Your task to perform on an android device: When is my next meeting? Image 0: 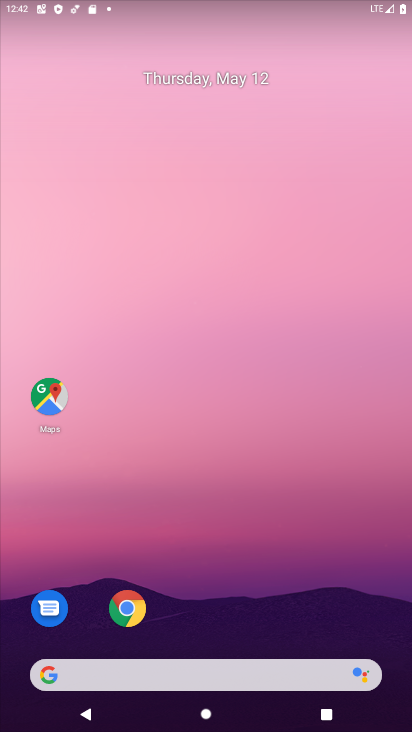
Step 0: drag from (268, 482) to (236, 22)
Your task to perform on an android device: When is my next meeting? Image 1: 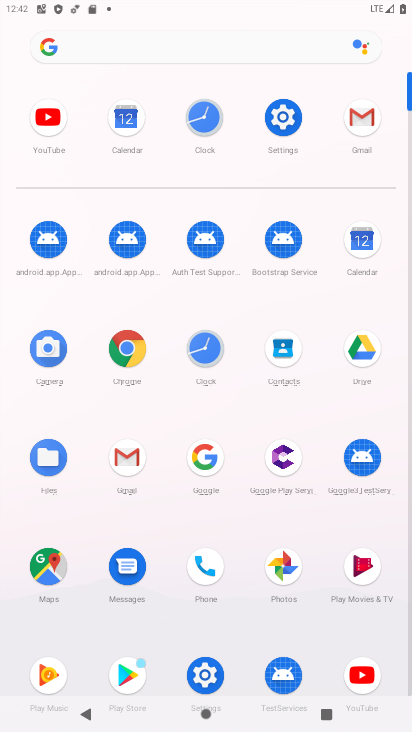
Step 1: click (124, 130)
Your task to perform on an android device: When is my next meeting? Image 2: 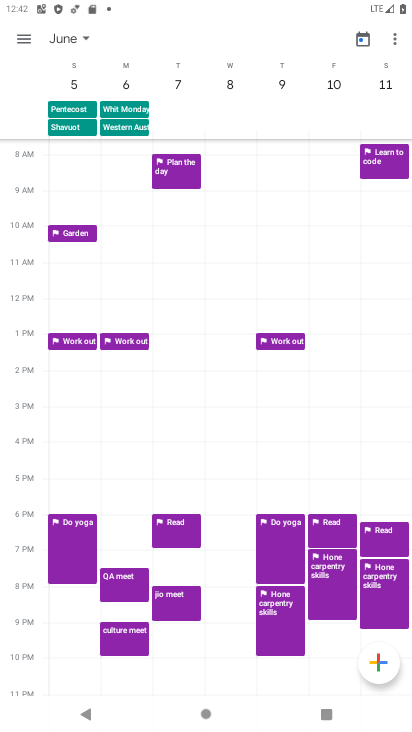
Step 2: click (87, 38)
Your task to perform on an android device: When is my next meeting? Image 3: 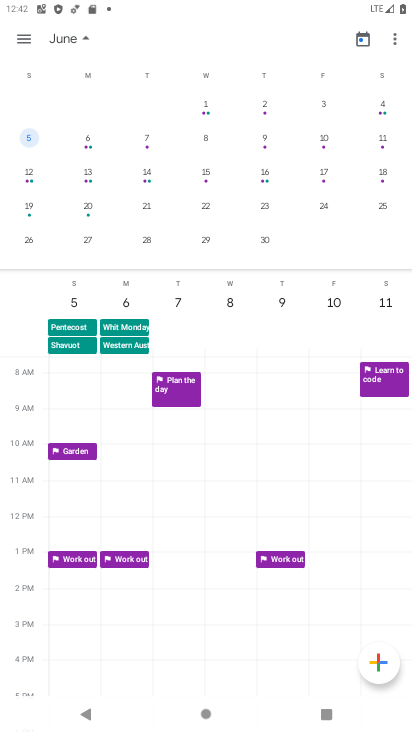
Step 3: click (364, 39)
Your task to perform on an android device: When is my next meeting? Image 4: 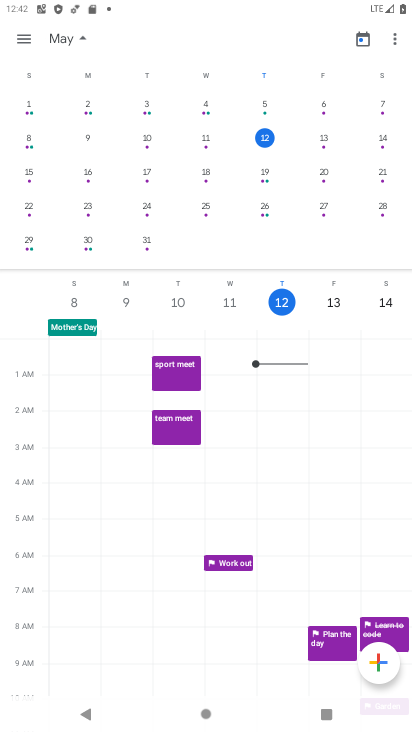
Step 4: click (19, 38)
Your task to perform on an android device: When is my next meeting? Image 5: 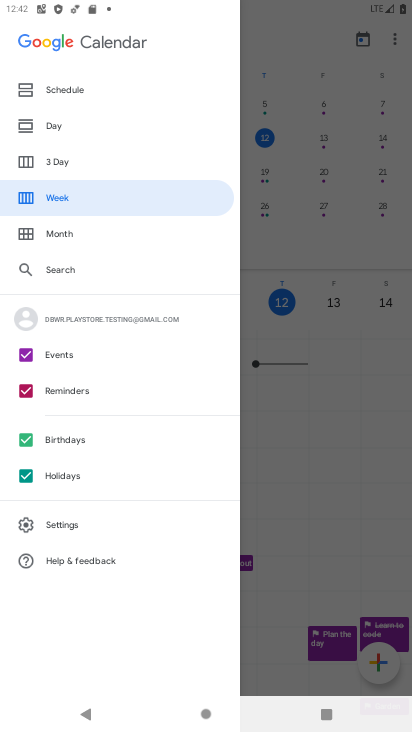
Step 5: click (63, 94)
Your task to perform on an android device: When is my next meeting? Image 6: 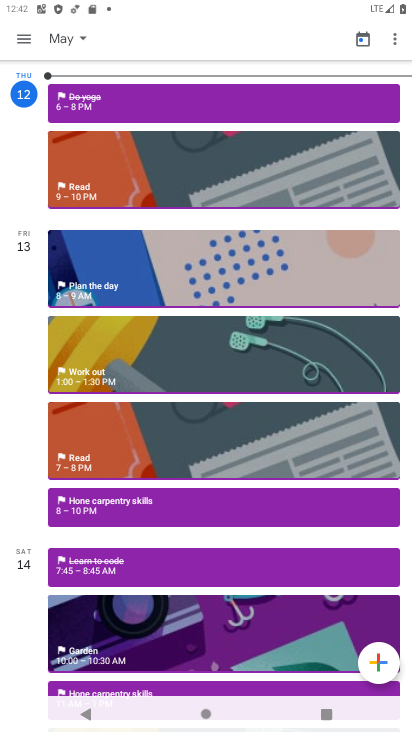
Step 6: click (91, 110)
Your task to perform on an android device: When is my next meeting? Image 7: 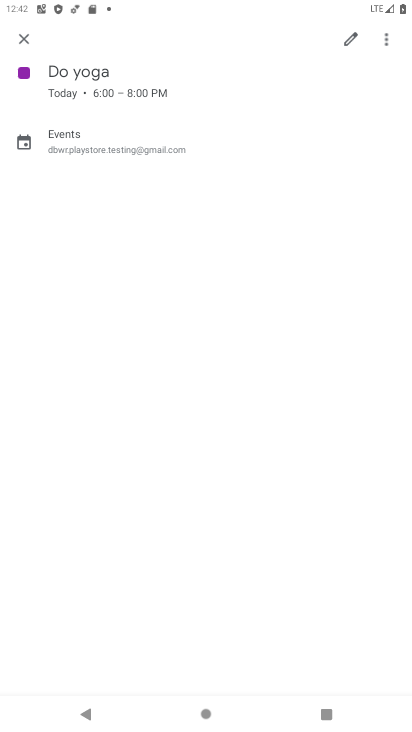
Step 7: task complete